Your task to perform on an android device: Check the news Image 0: 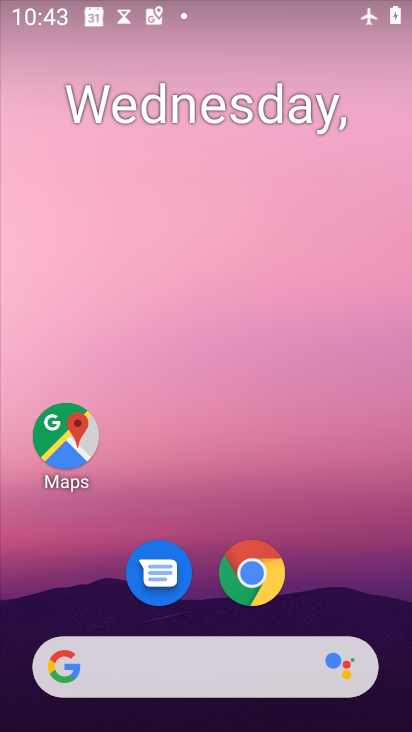
Step 0: click (257, 562)
Your task to perform on an android device: Check the news Image 1: 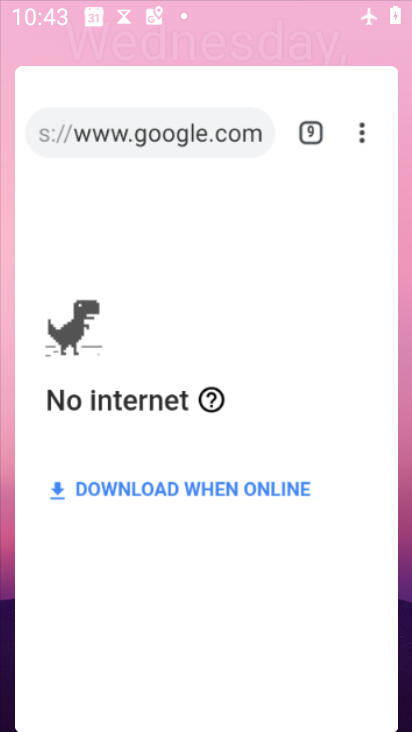
Step 1: click (258, 561)
Your task to perform on an android device: Check the news Image 2: 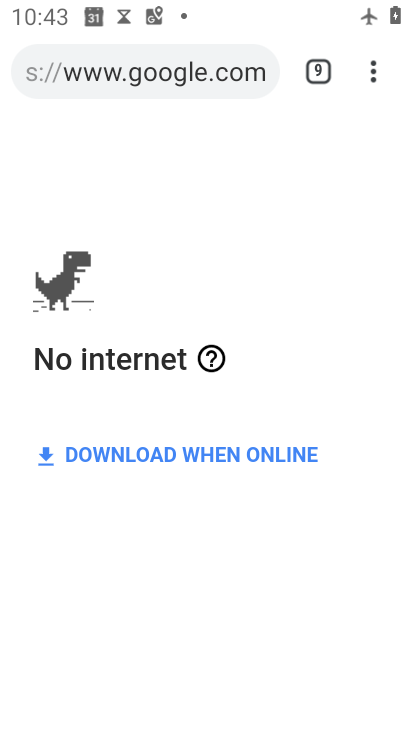
Step 2: click (366, 61)
Your task to perform on an android device: Check the news Image 3: 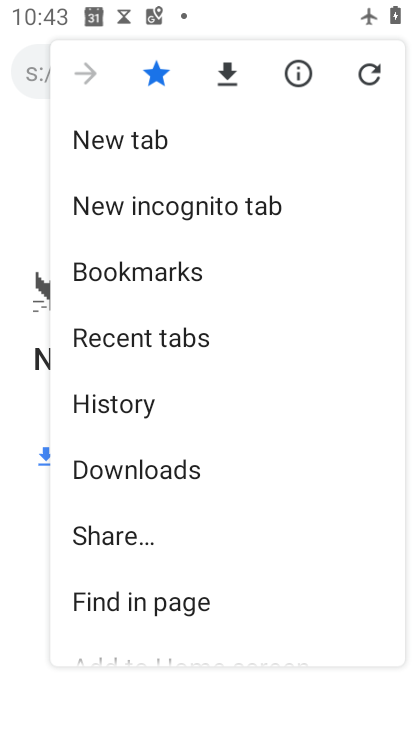
Step 3: click (373, 67)
Your task to perform on an android device: Check the news Image 4: 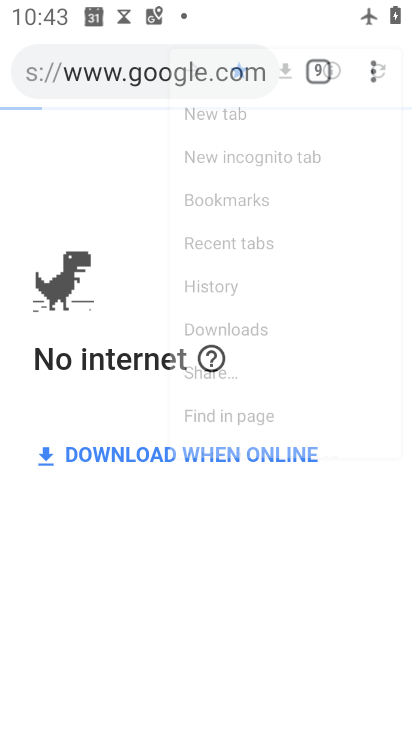
Step 4: click (106, 140)
Your task to perform on an android device: Check the news Image 5: 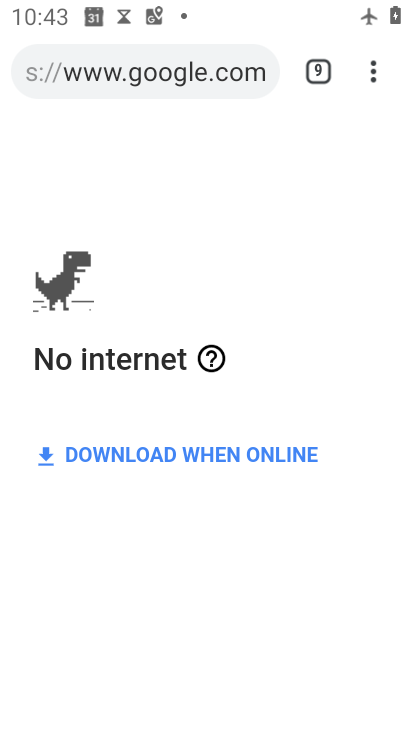
Step 5: click (359, 62)
Your task to perform on an android device: Check the news Image 6: 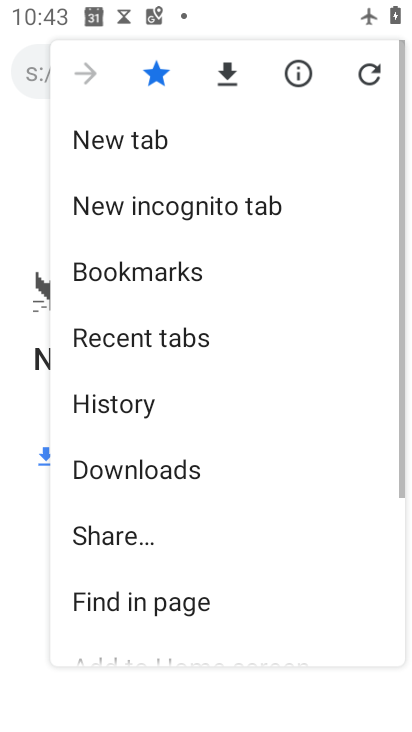
Step 6: click (165, 130)
Your task to perform on an android device: Check the news Image 7: 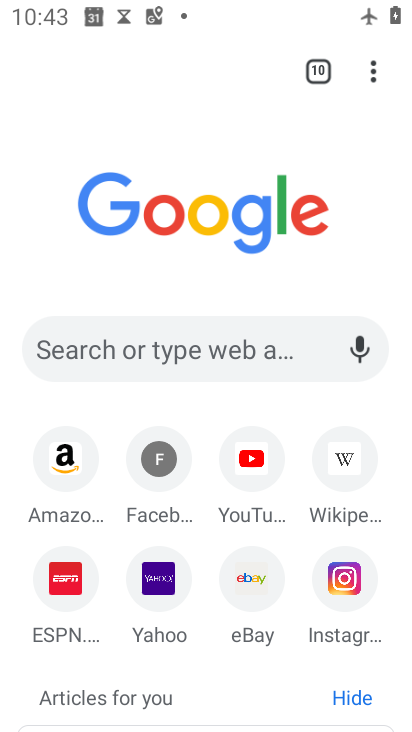
Step 7: click (187, 335)
Your task to perform on an android device: Check the news Image 8: 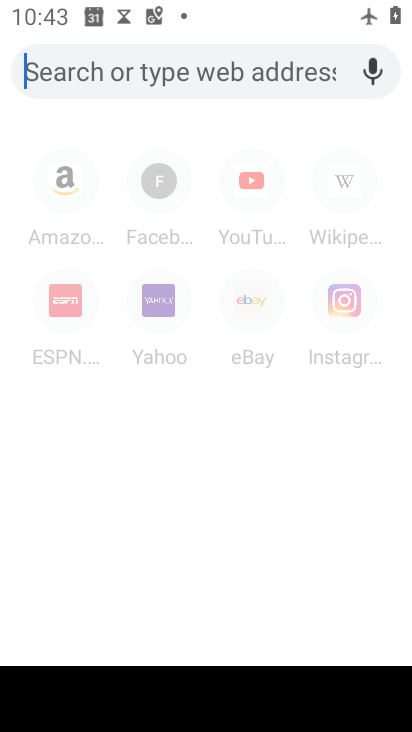
Step 8: type "What's the weather?"
Your task to perform on an android device: Check the news Image 9: 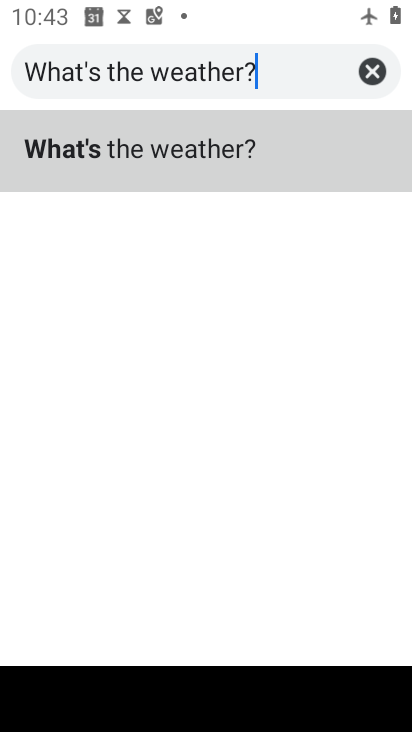
Step 9: click (274, 157)
Your task to perform on an android device: Check the news Image 10: 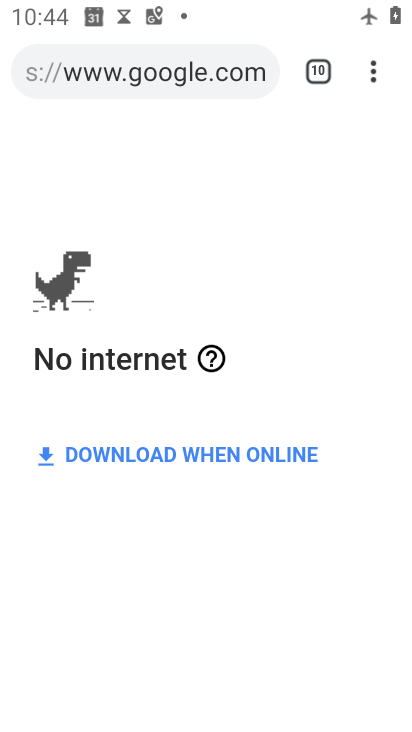
Step 10: task complete